Your task to perform on an android device: Search for Mexican restaurants on Maps Image 0: 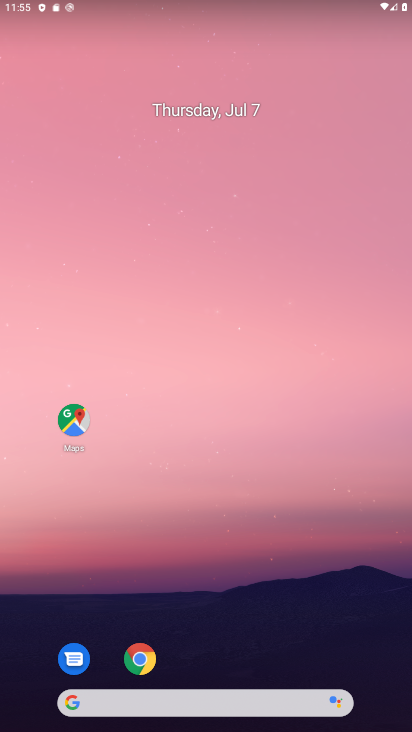
Step 0: click (73, 420)
Your task to perform on an android device: Search for Mexican restaurants on Maps Image 1: 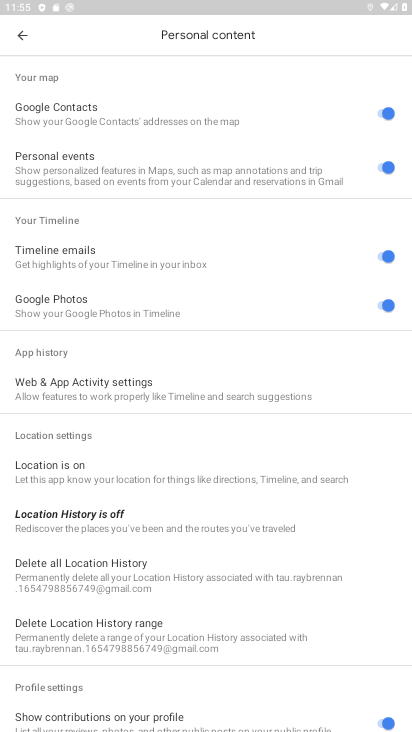
Step 1: click (23, 29)
Your task to perform on an android device: Search for Mexican restaurants on Maps Image 2: 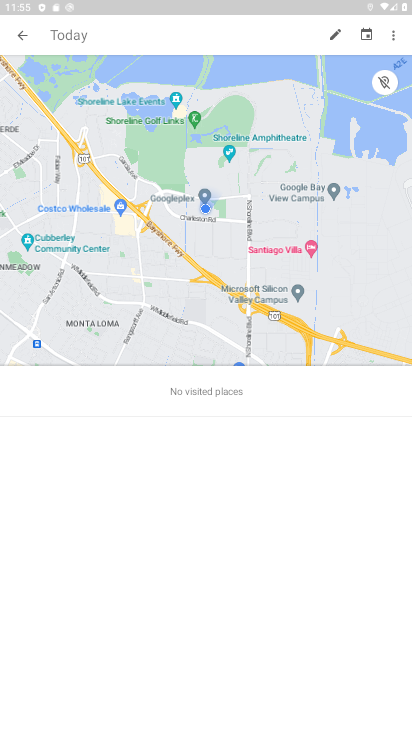
Step 2: click (149, 25)
Your task to perform on an android device: Search for Mexican restaurants on Maps Image 3: 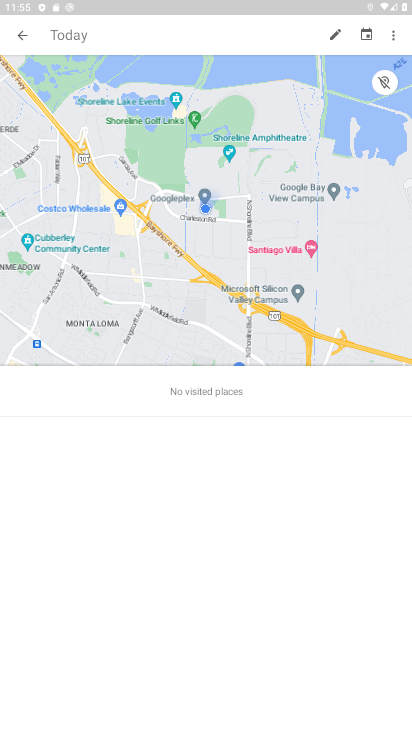
Step 3: click (15, 30)
Your task to perform on an android device: Search for Mexican restaurants on Maps Image 4: 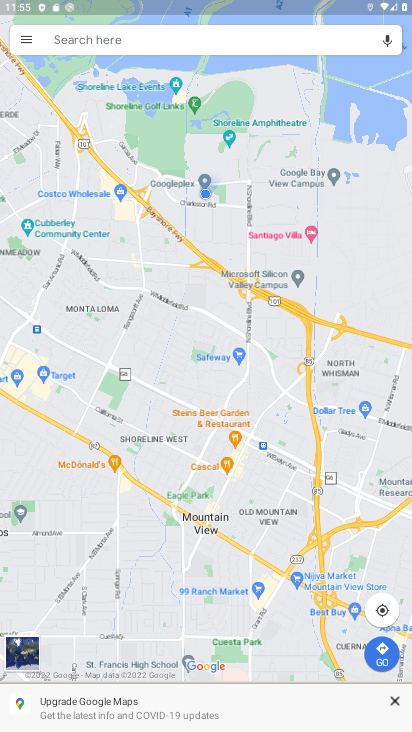
Step 4: click (97, 38)
Your task to perform on an android device: Search for Mexican restaurants on Maps Image 5: 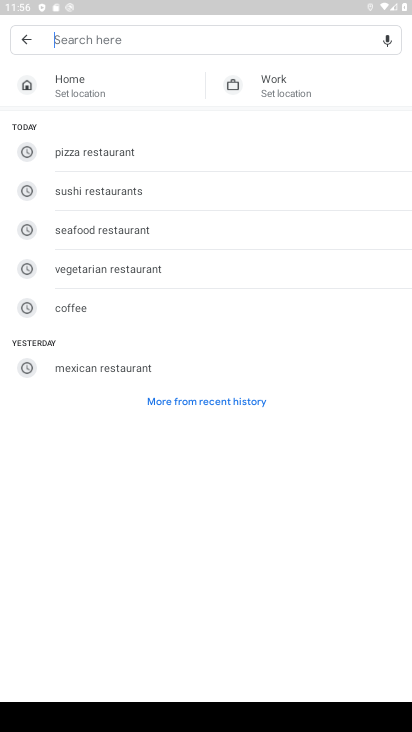
Step 5: type "Mexican restaurants"
Your task to perform on an android device: Search for Mexican restaurants on Maps Image 6: 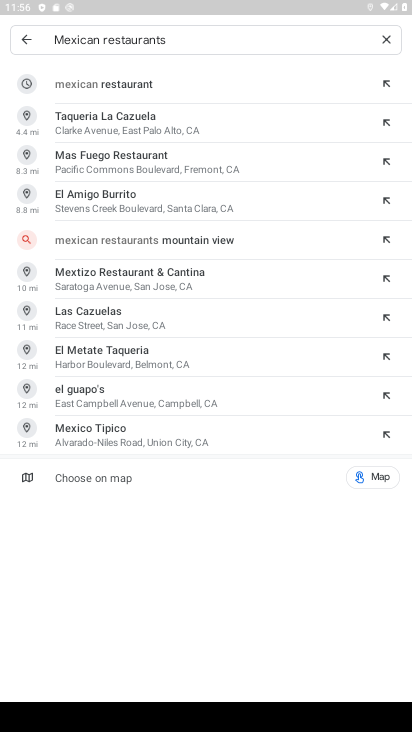
Step 6: click (129, 80)
Your task to perform on an android device: Search for Mexican restaurants on Maps Image 7: 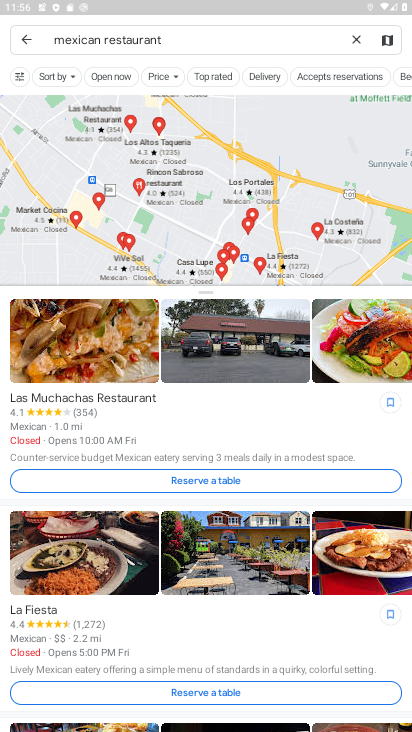
Step 7: task complete